Your task to perform on an android device: turn off location history Image 0: 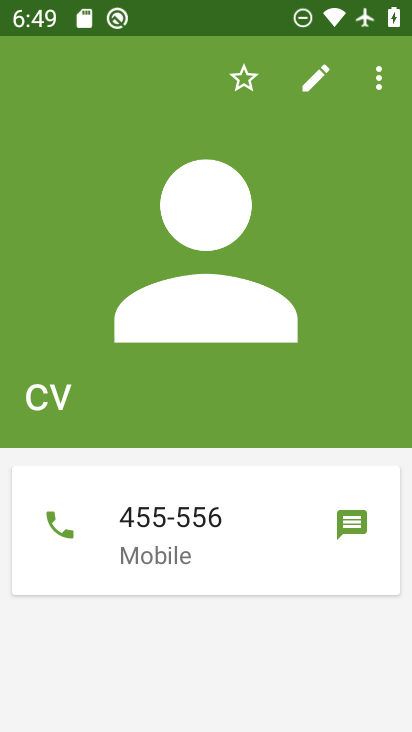
Step 0: press home button
Your task to perform on an android device: turn off location history Image 1: 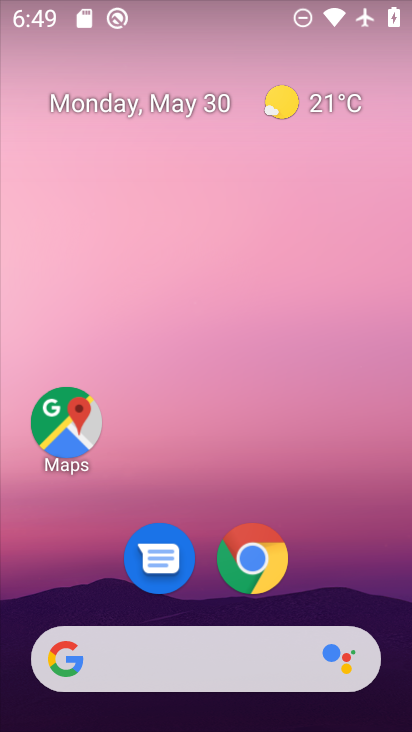
Step 1: click (75, 413)
Your task to perform on an android device: turn off location history Image 2: 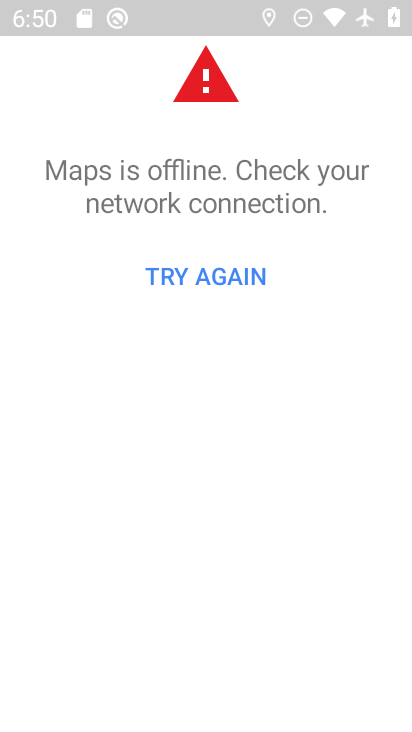
Step 2: click (216, 283)
Your task to perform on an android device: turn off location history Image 3: 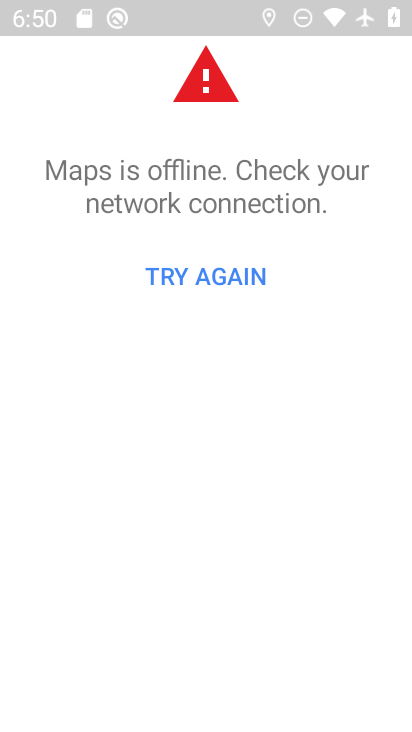
Step 3: click (216, 283)
Your task to perform on an android device: turn off location history Image 4: 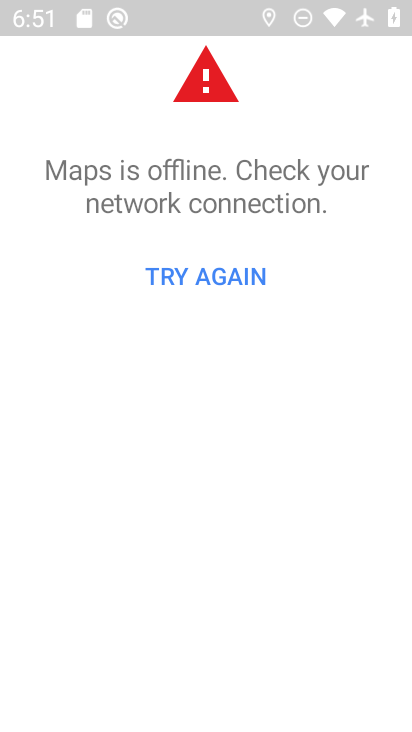
Step 4: click (153, 289)
Your task to perform on an android device: turn off location history Image 5: 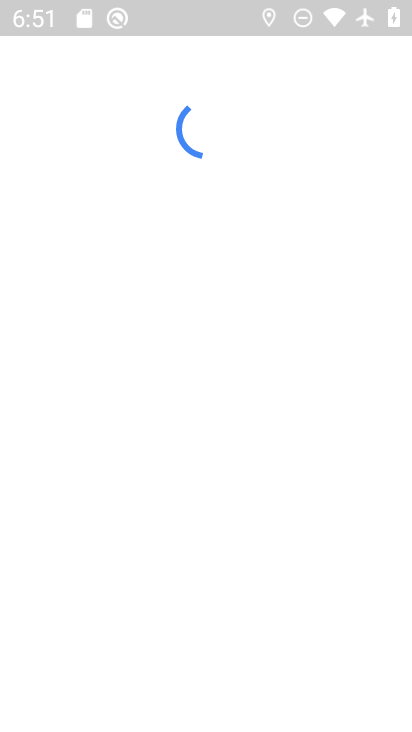
Step 5: task complete